Your task to perform on an android device: turn on wifi Image 0: 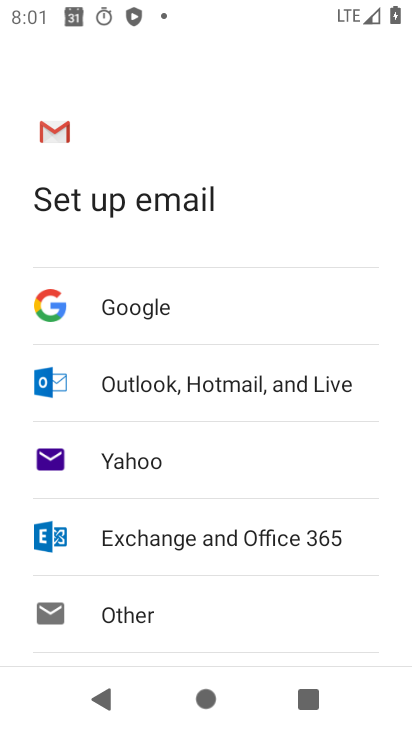
Step 0: press home button
Your task to perform on an android device: turn on wifi Image 1: 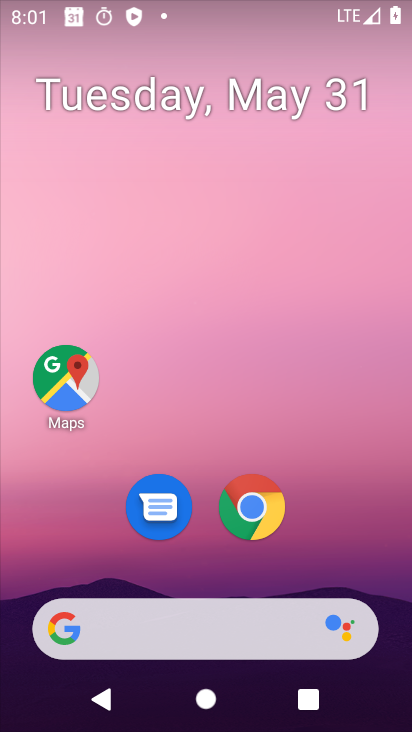
Step 1: drag from (338, 565) to (287, 12)
Your task to perform on an android device: turn on wifi Image 2: 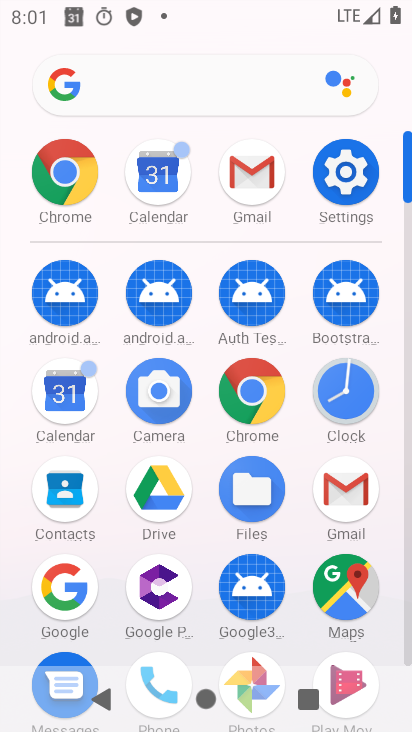
Step 2: click (344, 162)
Your task to perform on an android device: turn on wifi Image 3: 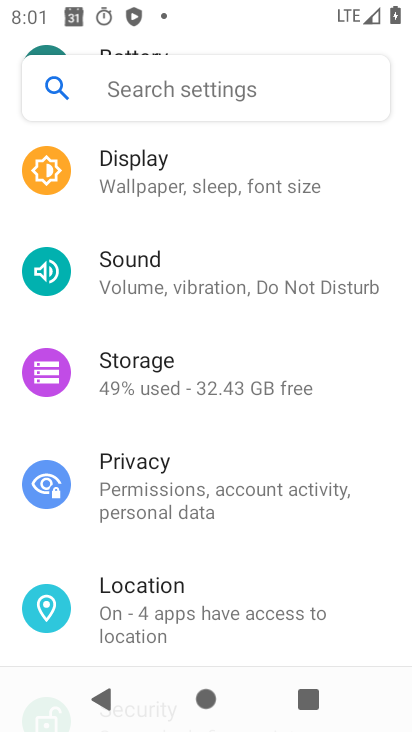
Step 3: drag from (369, 222) to (394, 481)
Your task to perform on an android device: turn on wifi Image 4: 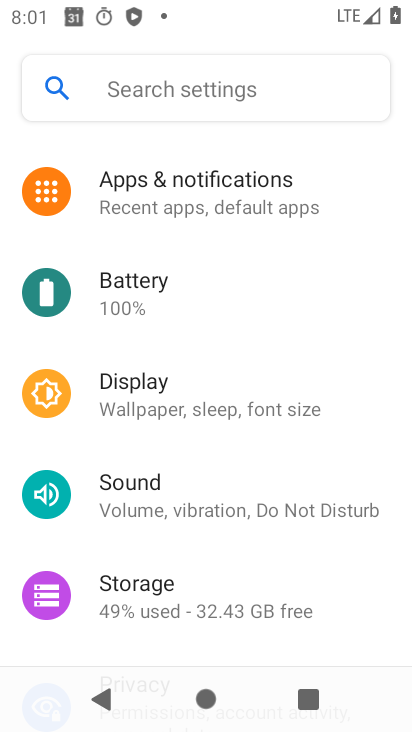
Step 4: drag from (352, 265) to (355, 338)
Your task to perform on an android device: turn on wifi Image 5: 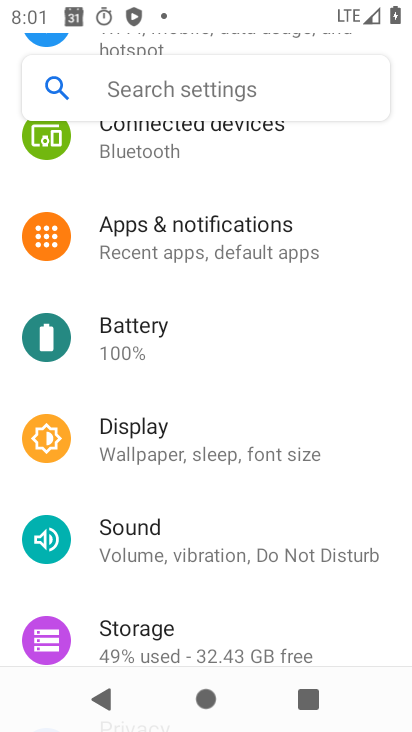
Step 5: drag from (344, 191) to (351, 605)
Your task to perform on an android device: turn on wifi Image 6: 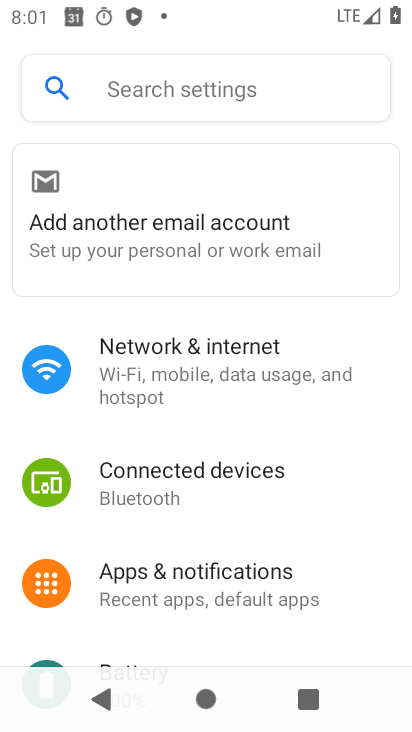
Step 6: click (174, 362)
Your task to perform on an android device: turn on wifi Image 7: 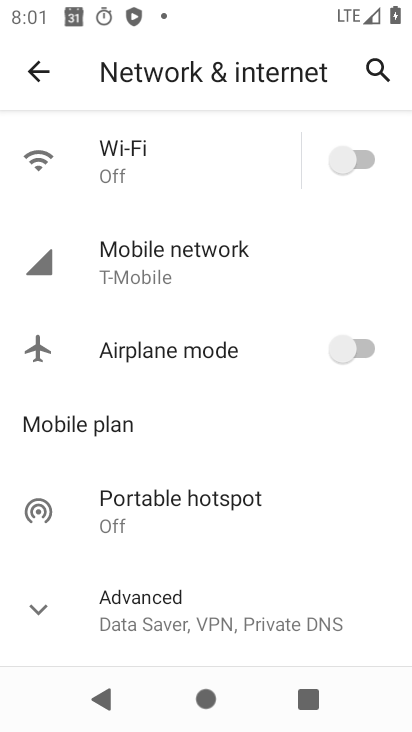
Step 7: click (350, 157)
Your task to perform on an android device: turn on wifi Image 8: 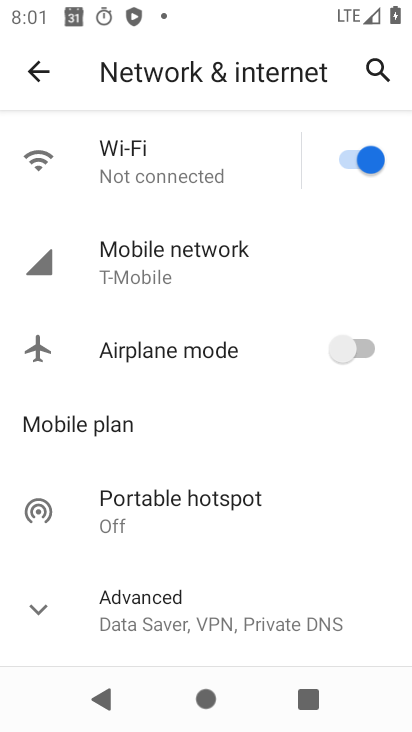
Step 8: task complete